Your task to perform on an android device: Open Chrome and go to settings Image 0: 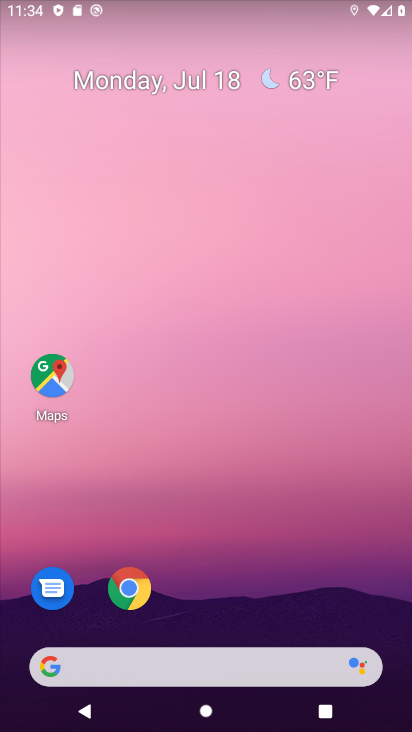
Step 0: drag from (285, 623) to (363, 2)
Your task to perform on an android device: Open Chrome and go to settings Image 1: 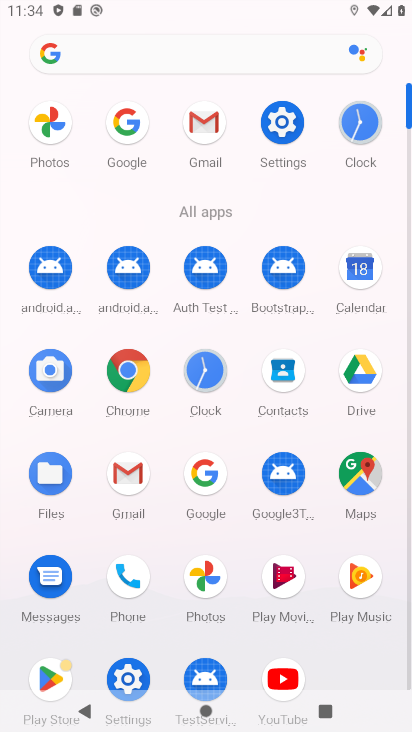
Step 1: click (131, 381)
Your task to perform on an android device: Open Chrome and go to settings Image 2: 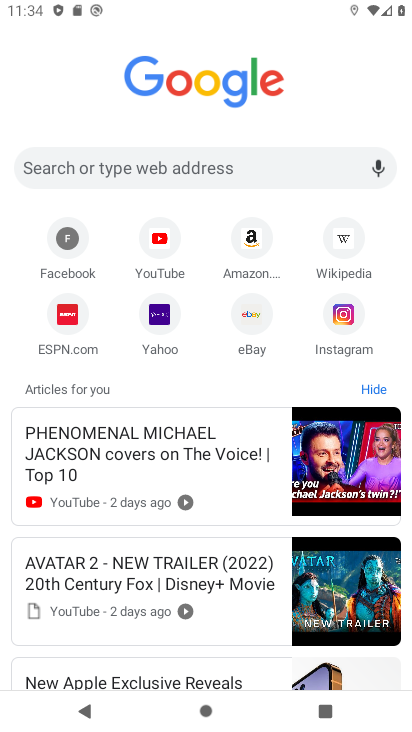
Step 2: drag from (286, 72) to (249, 469)
Your task to perform on an android device: Open Chrome and go to settings Image 3: 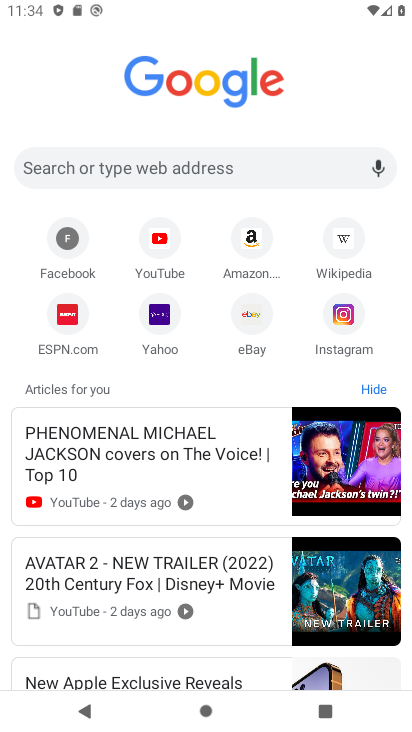
Step 3: drag from (393, 135) to (409, 319)
Your task to perform on an android device: Open Chrome and go to settings Image 4: 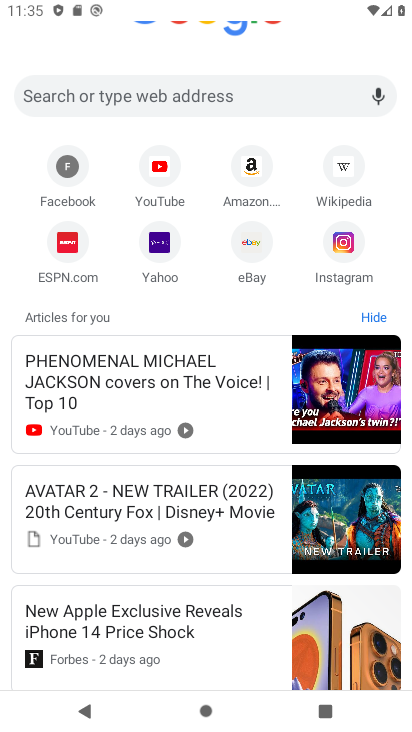
Step 4: click (388, 45)
Your task to perform on an android device: Open Chrome and go to settings Image 5: 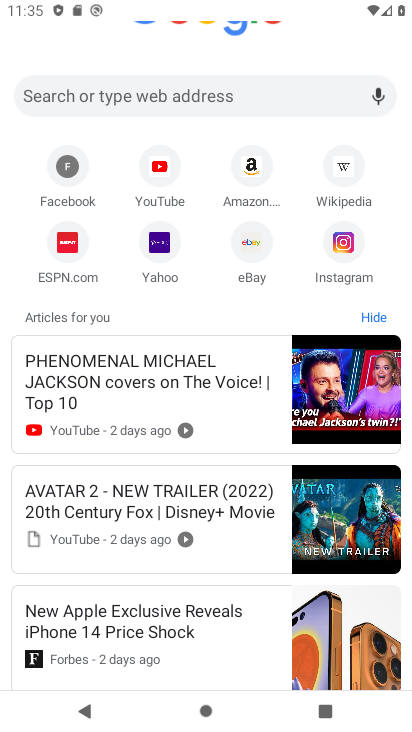
Step 5: drag from (388, 45) to (389, 361)
Your task to perform on an android device: Open Chrome and go to settings Image 6: 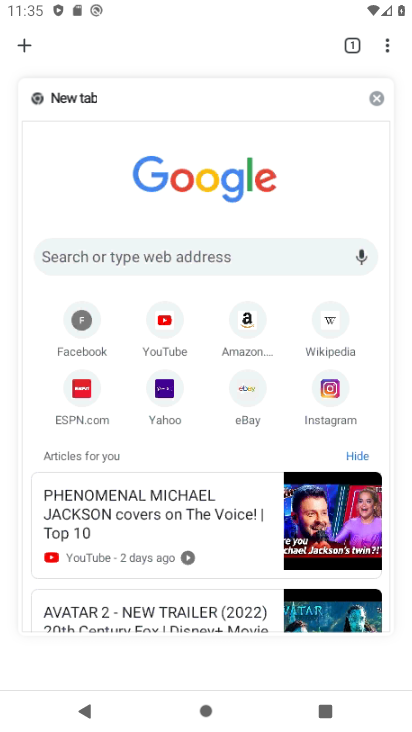
Step 6: click (379, 47)
Your task to perform on an android device: Open Chrome and go to settings Image 7: 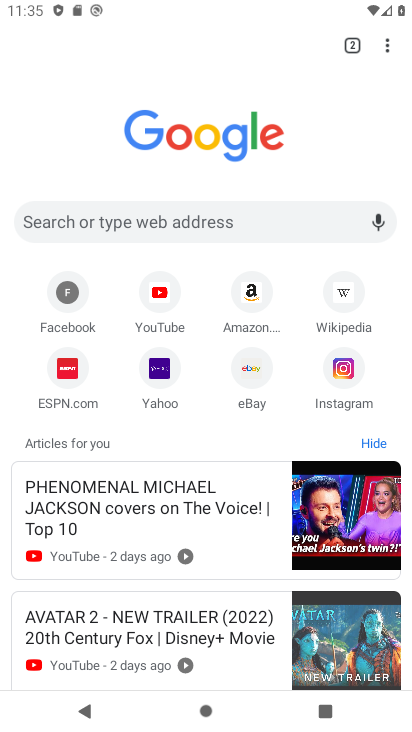
Step 7: click (392, 46)
Your task to perform on an android device: Open Chrome and go to settings Image 8: 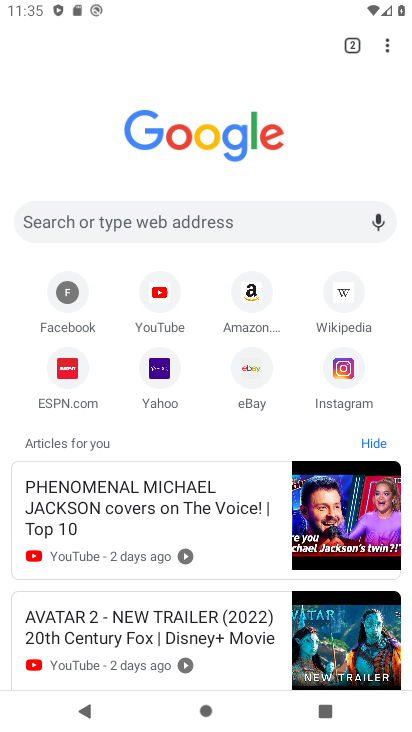
Step 8: task complete